Your task to perform on an android device: Open Amazon Image 0: 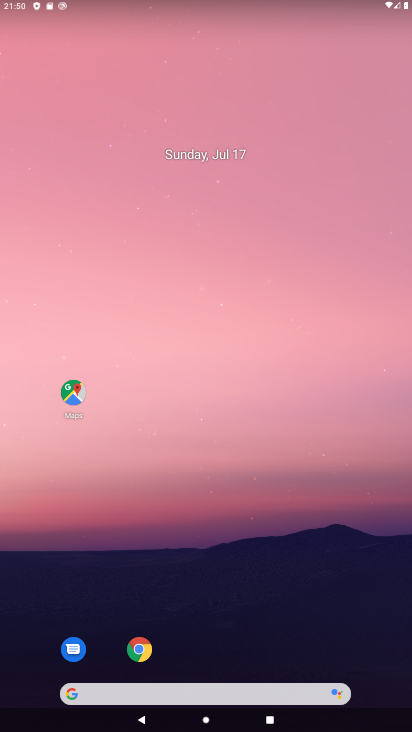
Step 0: click (138, 683)
Your task to perform on an android device: Open Amazon Image 1: 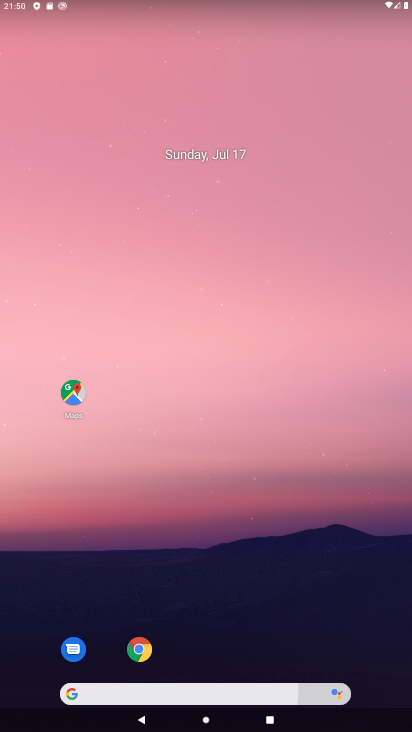
Step 1: click (122, 701)
Your task to perform on an android device: Open Amazon Image 2: 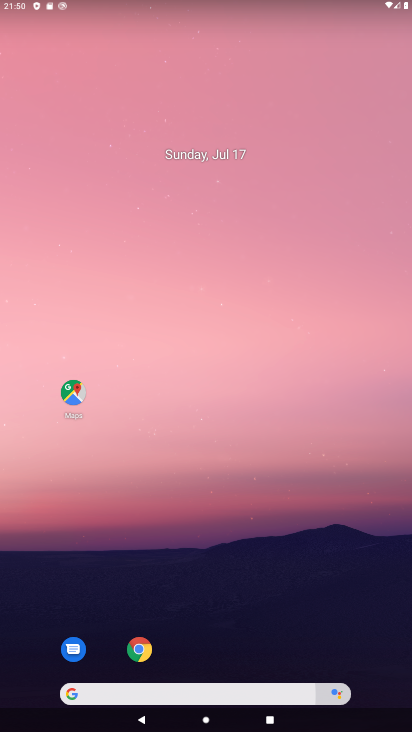
Step 2: click (122, 695)
Your task to perform on an android device: Open Amazon Image 3: 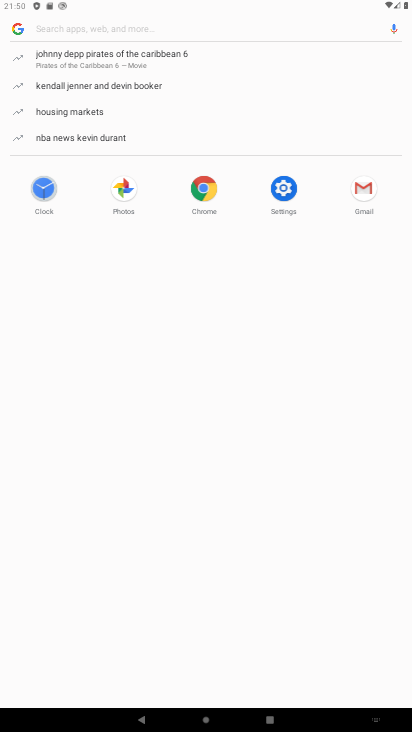
Step 3: type "Amazon"
Your task to perform on an android device: Open Amazon Image 4: 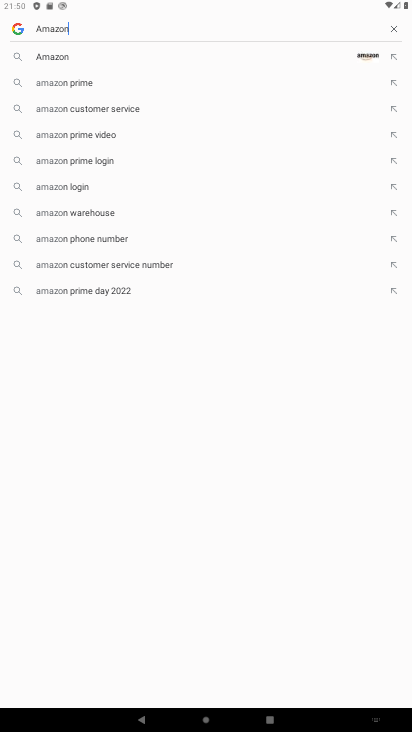
Step 4: type ""
Your task to perform on an android device: Open Amazon Image 5: 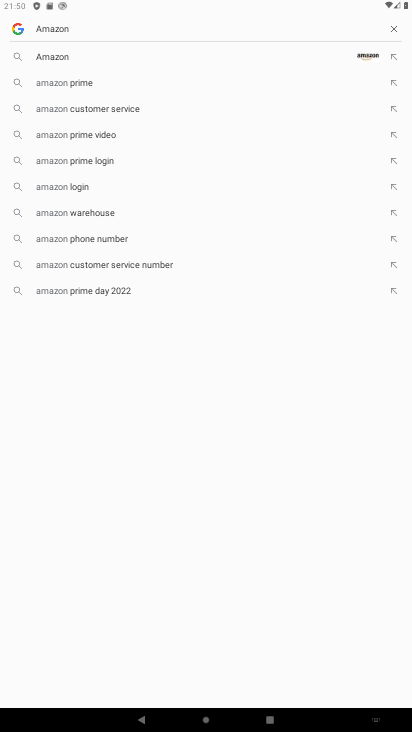
Step 5: type ""
Your task to perform on an android device: Open Amazon Image 6: 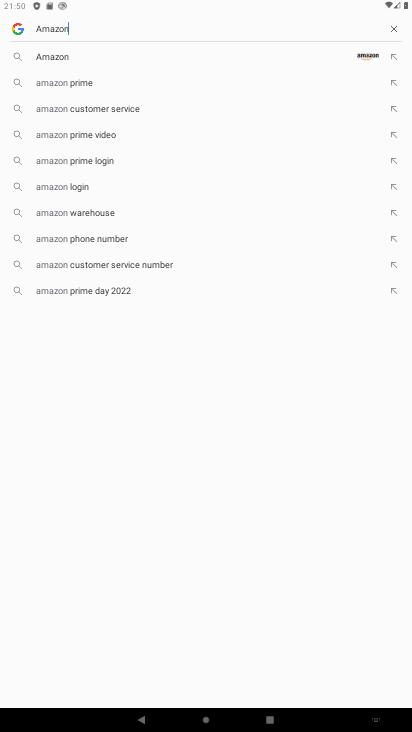
Step 6: type ""
Your task to perform on an android device: Open Amazon Image 7: 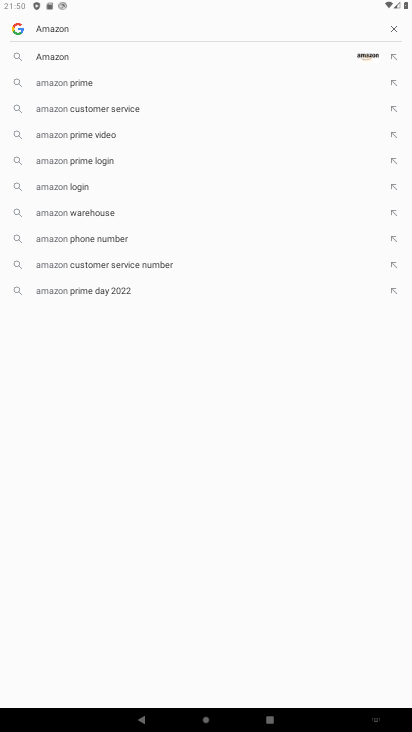
Step 7: click (47, 66)
Your task to perform on an android device: Open Amazon Image 8: 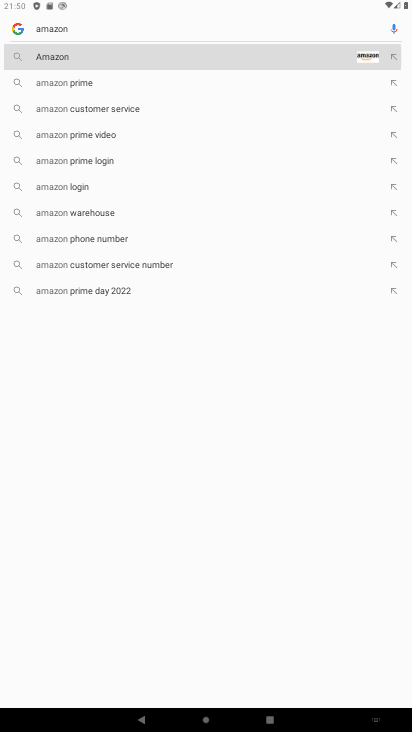
Step 8: click (40, 58)
Your task to perform on an android device: Open Amazon Image 9: 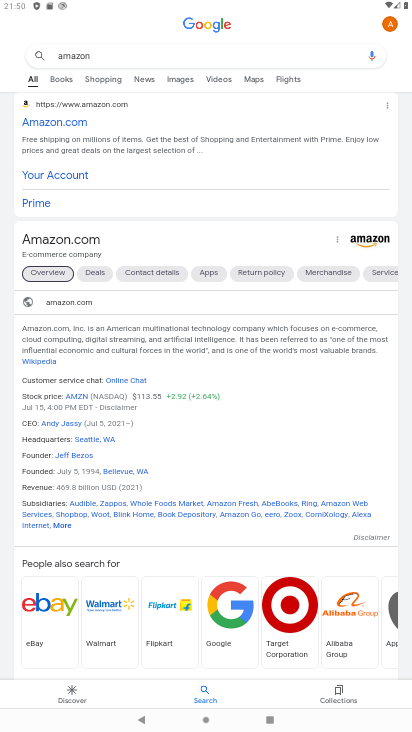
Step 9: task complete